Your task to perform on an android device: turn on wifi Image 0: 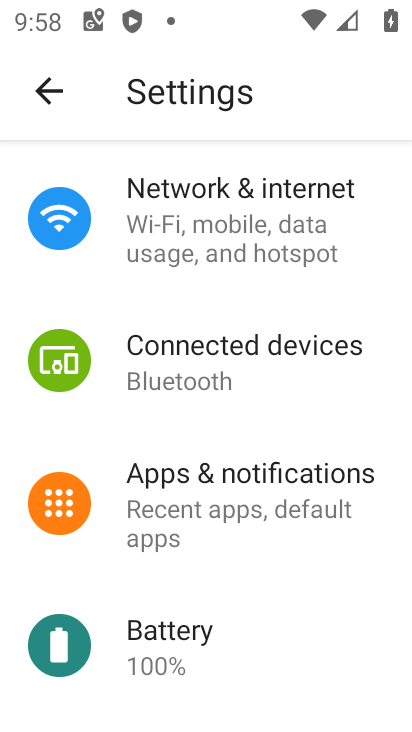
Step 0: click (286, 248)
Your task to perform on an android device: turn on wifi Image 1: 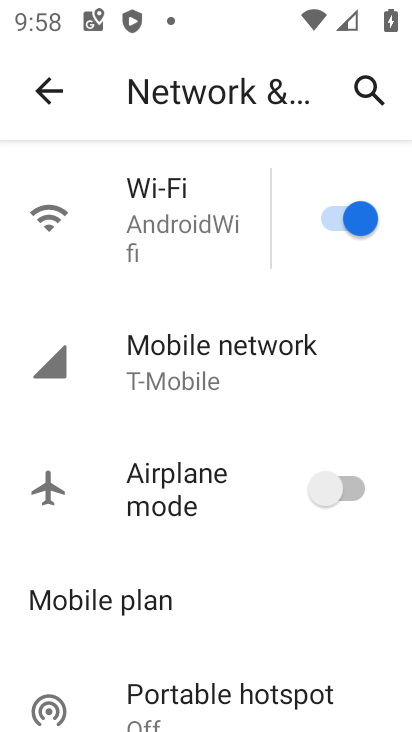
Step 1: task complete